Your task to perform on an android device: open sync settings in chrome Image 0: 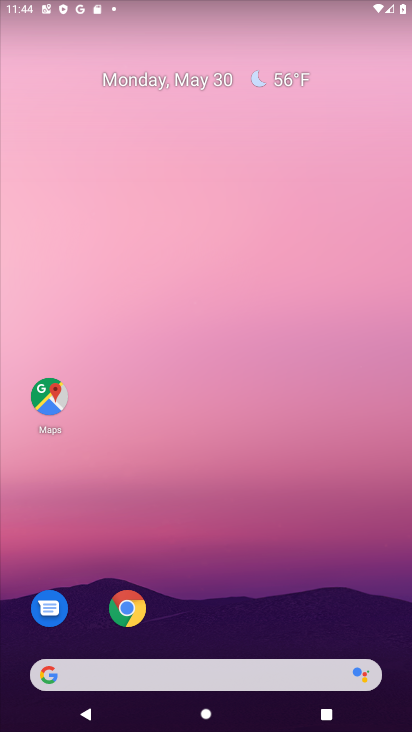
Step 0: click (123, 605)
Your task to perform on an android device: open sync settings in chrome Image 1: 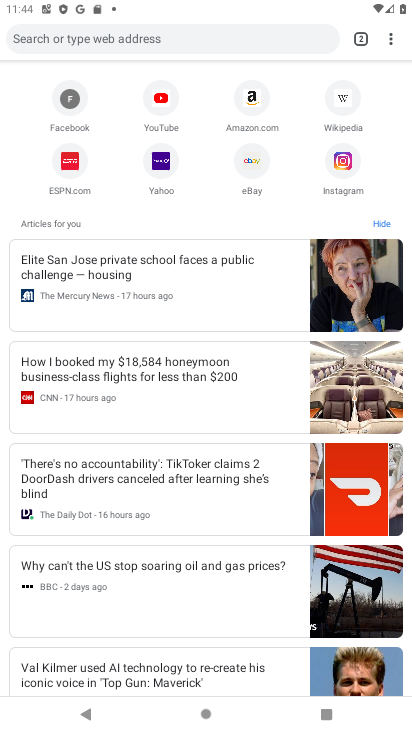
Step 1: click (383, 36)
Your task to perform on an android device: open sync settings in chrome Image 2: 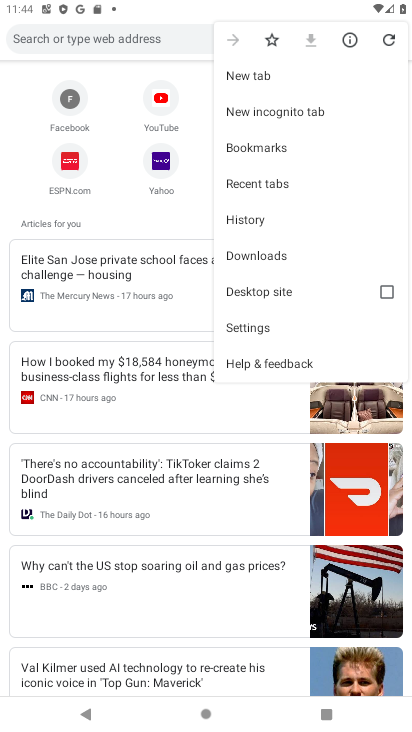
Step 2: click (275, 329)
Your task to perform on an android device: open sync settings in chrome Image 3: 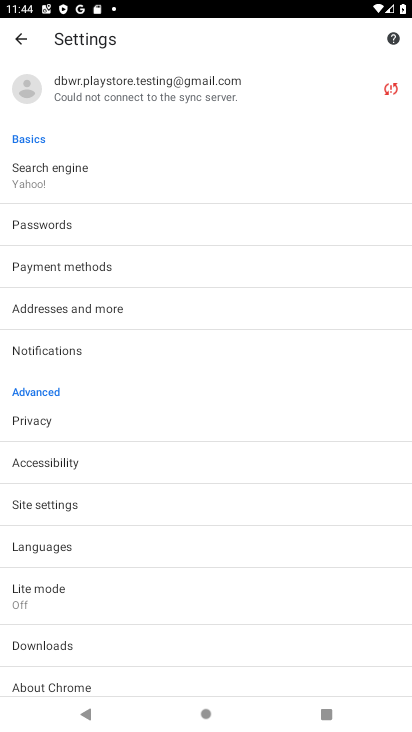
Step 3: click (24, 505)
Your task to perform on an android device: open sync settings in chrome Image 4: 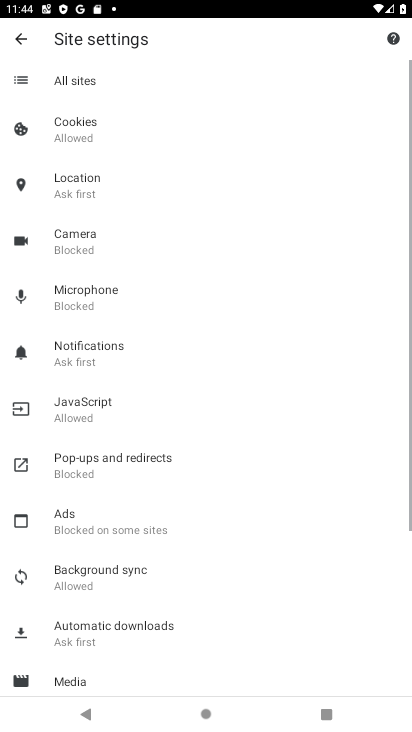
Step 4: drag from (208, 487) to (221, 287)
Your task to perform on an android device: open sync settings in chrome Image 5: 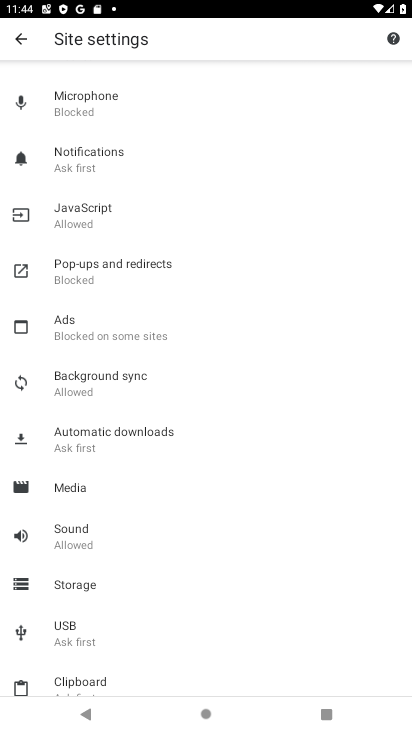
Step 5: click (123, 372)
Your task to perform on an android device: open sync settings in chrome Image 6: 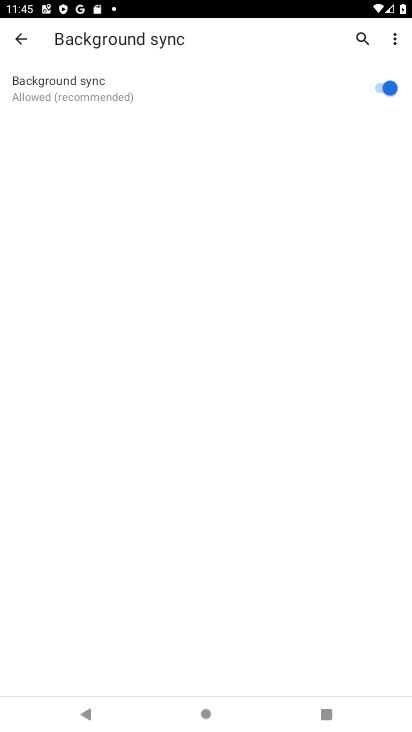
Step 6: task complete